Your task to perform on an android device: Open Google Maps Image 0: 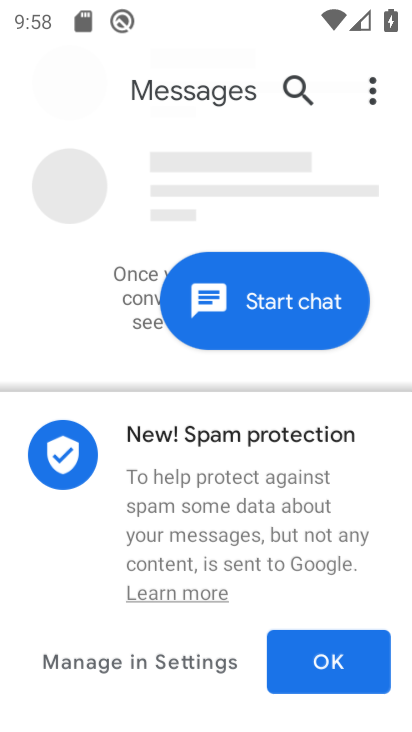
Step 0: drag from (144, 650) to (142, 109)
Your task to perform on an android device: Open Google Maps Image 1: 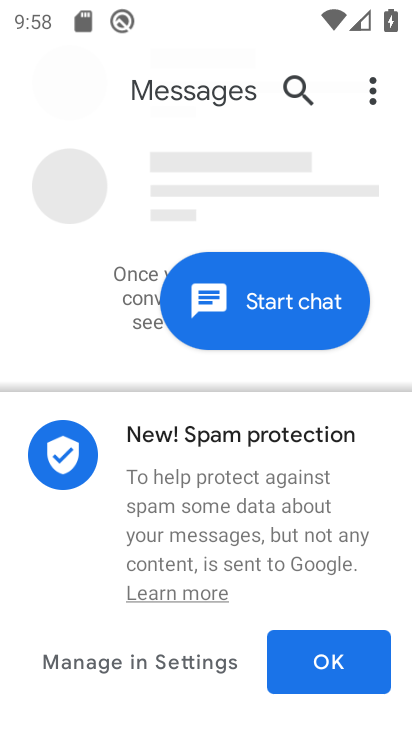
Step 1: press home button
Your task to perform on an android device: Open Google Maps Image 2: 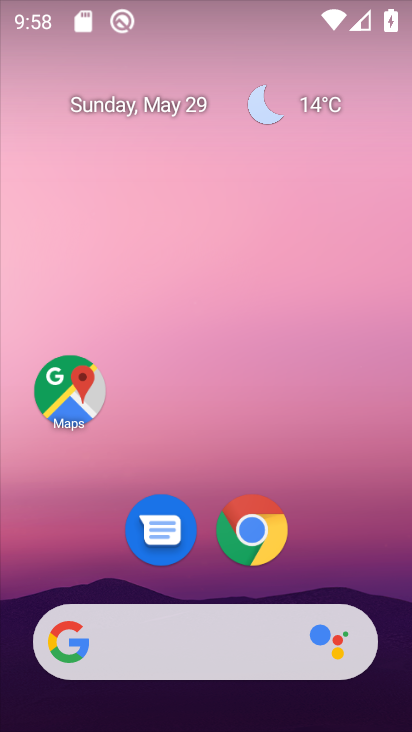
Step 2: click (81, 416)
Your task to perform on an android device: Open Google Maps Image 3: 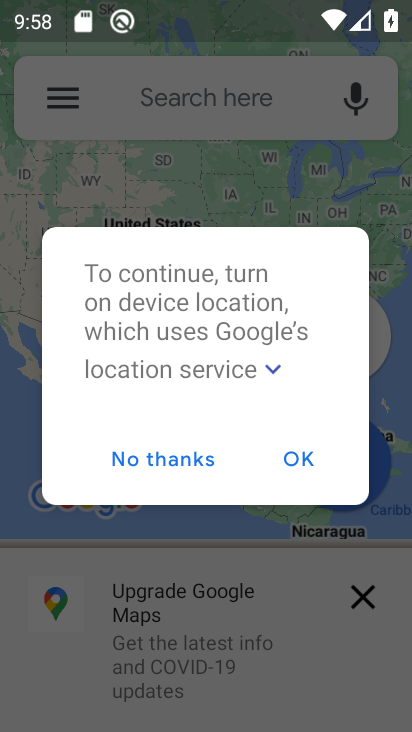
Step 3: task complete